Your task to perform on an android device: What's on my calendar today? Image 0: 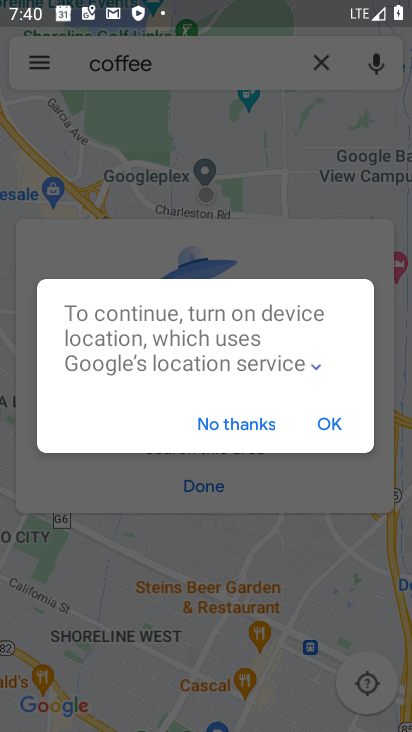
Step 0: press home button
Your task to perform on an android device: What's on my calendar today? Image 1: 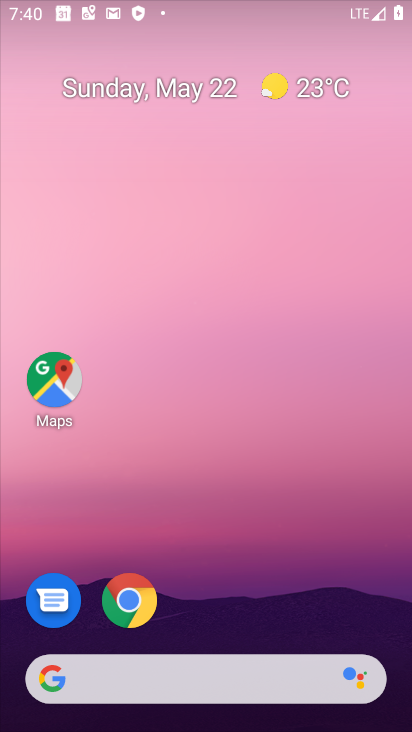
Step 1: drag from (350, 617) to (251, 85)
Your task to perform on an android device: What's on my calendar today? Image 2: 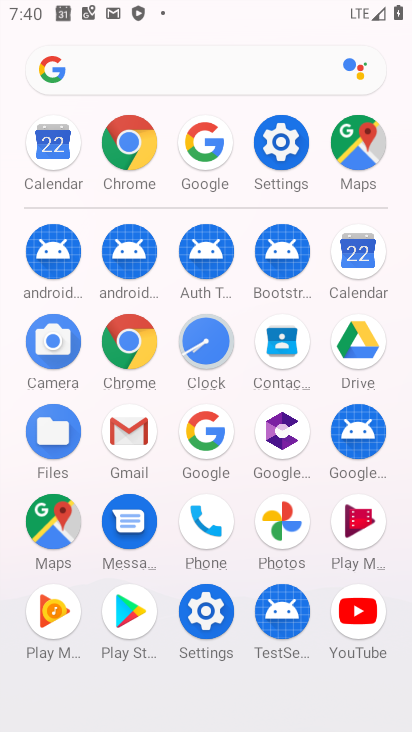
Step 2: click (350, 251)
Your task to perform on an android device: What's on my calendar today? Image 3: 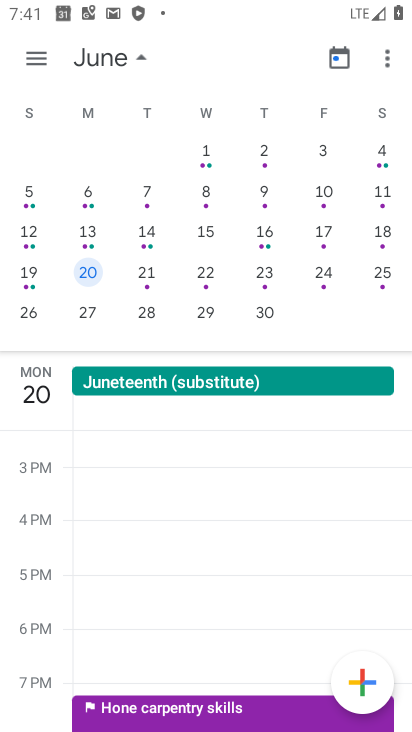
Step 3: drag from (87, 252) to (351, 206)
Your task to perform on an android device: What's on my calendar today? Image 4: 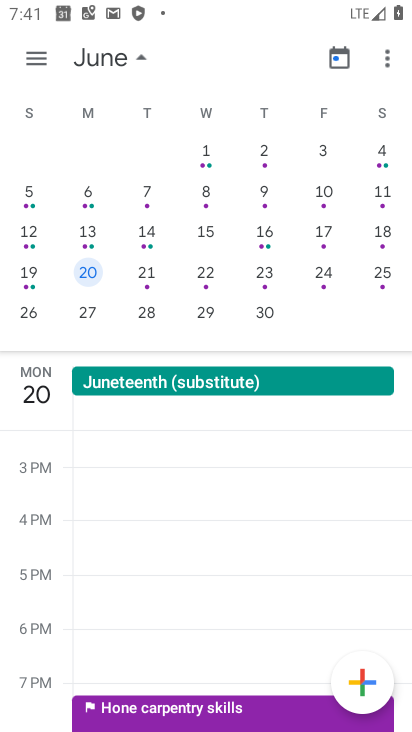
Step 4: drag from (50, 166) to (394, 220)
Your task to perform on an android device: What's on my calendar today? Image 5: 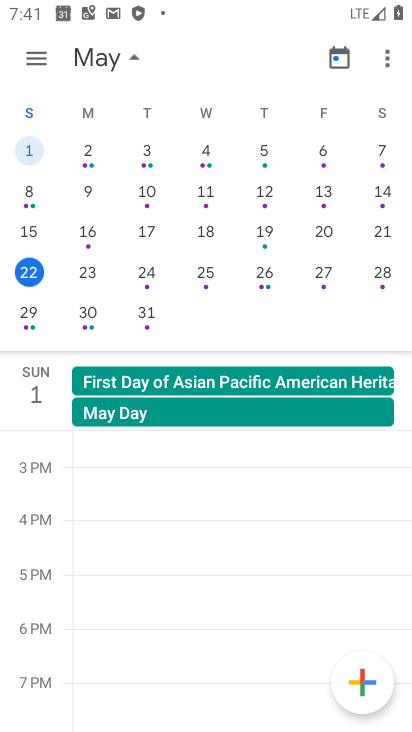
Step 5: click (90, 272)
Your task to perform on an android device: What's on my calendar today? Image 6: 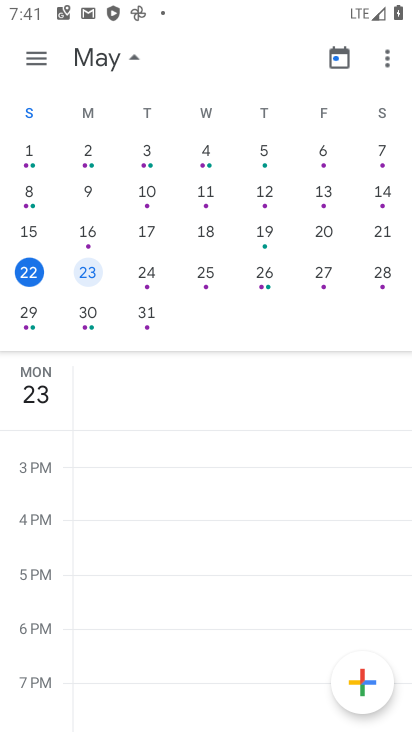
Step 6: task complete